Your task to perform on an android device: change keyboard looks Image 0: 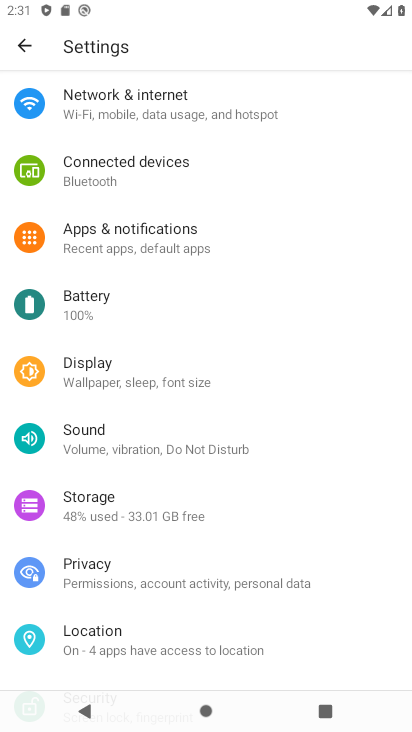
Step 0: press home button
Your task to perform on an android device: change keyboard looks Image 1: 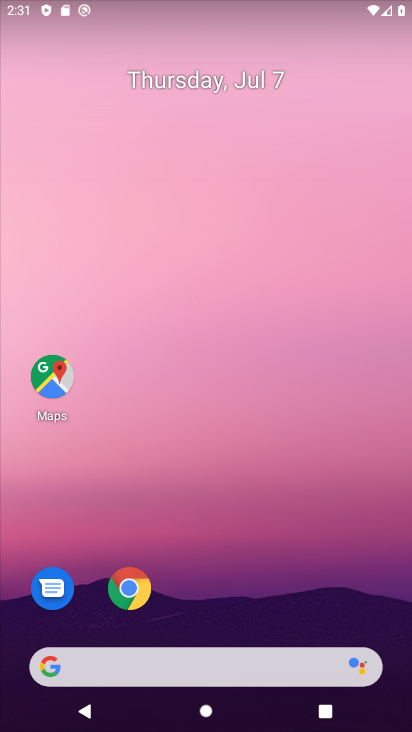
Step 1: drag from (290, 590) to (295, 28)
Your task to perform on an android device: change keyboard looks Image 2: 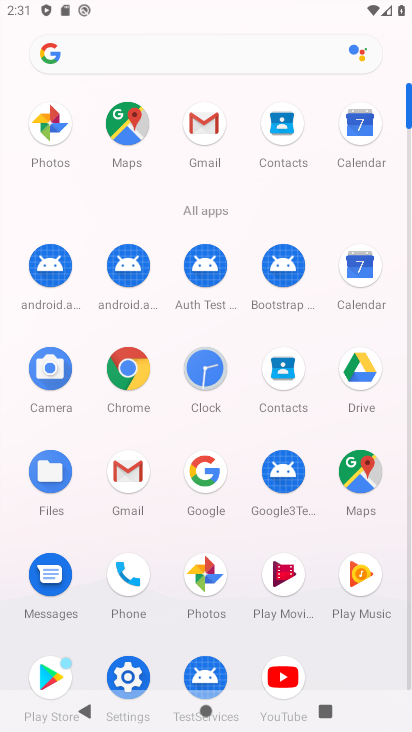
Step 2: click (139, 676)
Your task to perform on an android device: change keyboard looks Image 3: 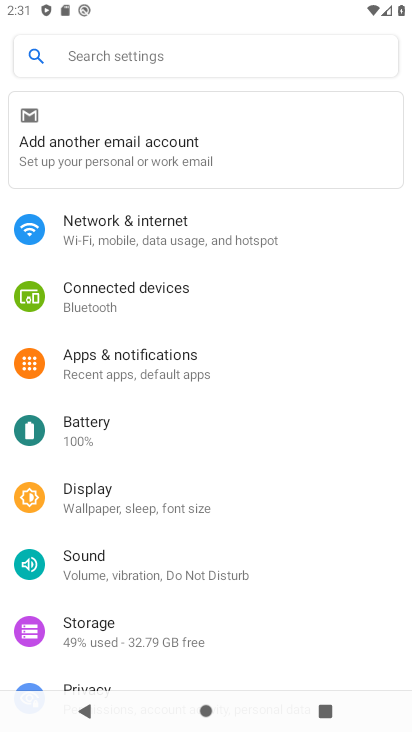
Step 3: drag from (186, 602) to (235, 138)
Your task to perform on an android device: change keyboard looks Image 4: 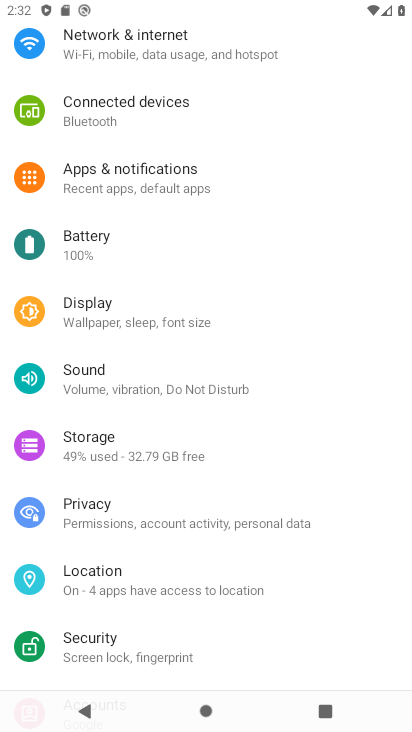
Step 4: drag from (195, 571) to (196, 316)
Your task to perform on an android device: change keyboard looks Image 5: 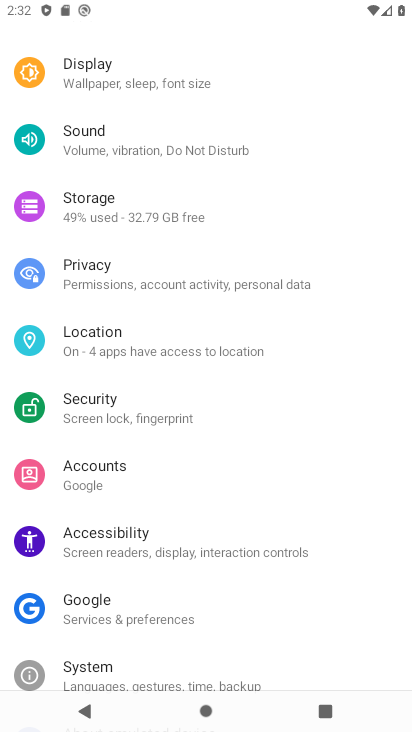
Step 5: click (128, 673)
Your task to perform on an android device: change keyboard looks Image 6: 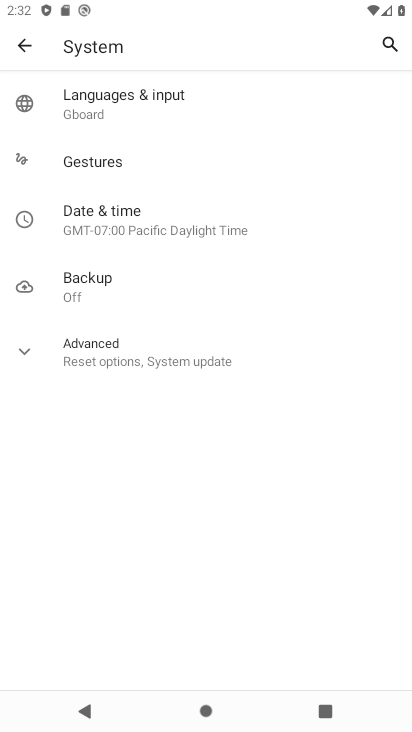
Step 6: click (93, 126)
Your task to perform on an android device: change keyboard looks Image 7: 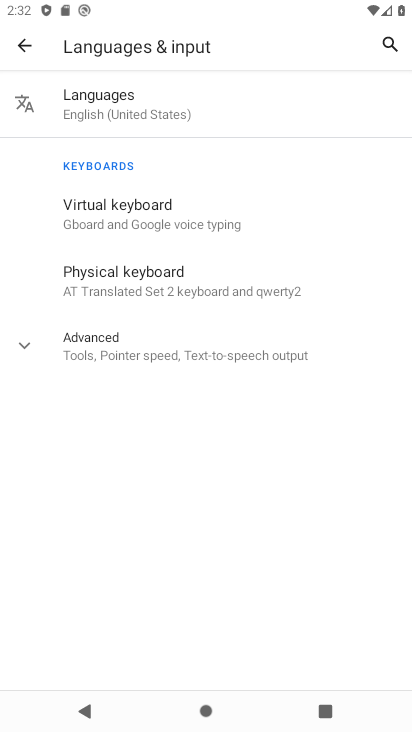
Step 7: click (153, 228)
Your task to perform on an android device: change keyboard looks Image 8: 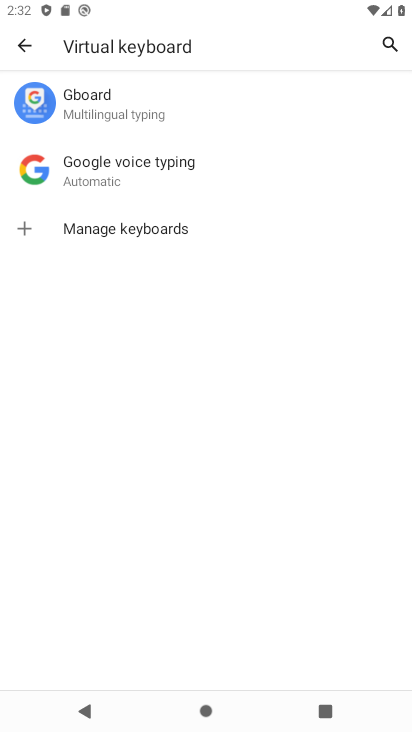
Step 8: click (140, 101)
Your task to perform on an android device: change keyboard looks Image 9: 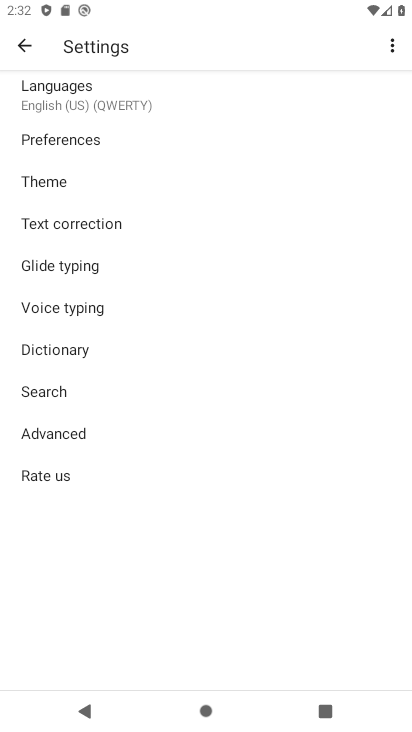
Step 9: click (63, 191)
Your task to perform on an android device: change keyboard looks Image 10: 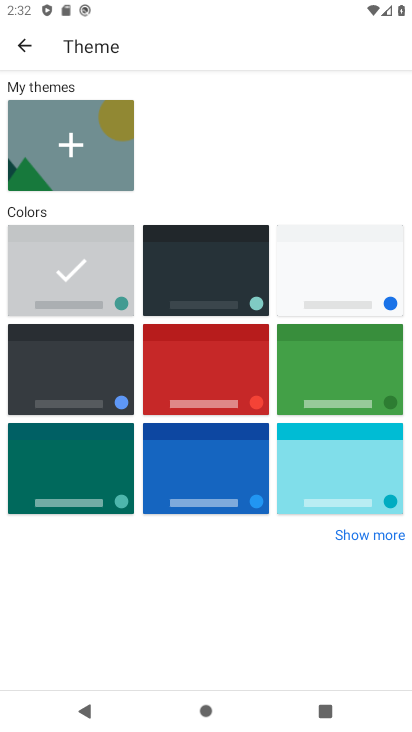
Step 10: click (327, 257)
Your task to perform on an android device: change keyboard looks Image 11: 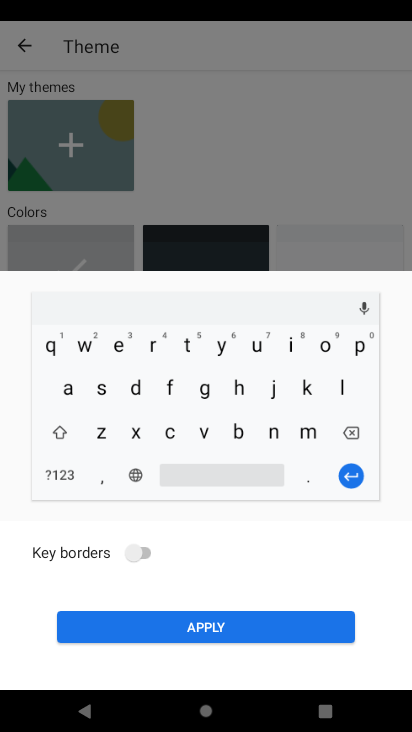
Step 11: click (286, 620)
Your task to perform on an android device: change keyboard looks Image 12: 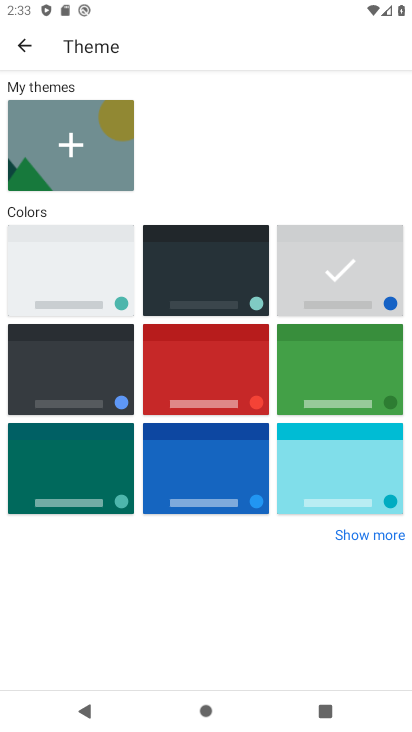
Step 12: task complete